Your task to perform on an android device: Search for Mexican restaurants on Maps Image 0: 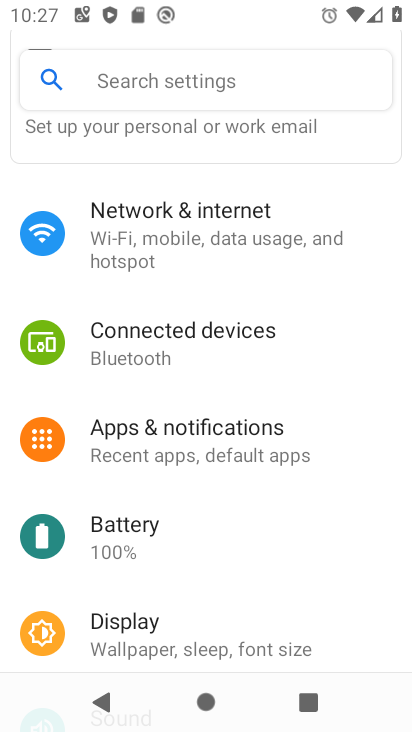
Step 0: press home button
Your task to perform on an android device: Search for Mexican restaurants on Maps Image 1: 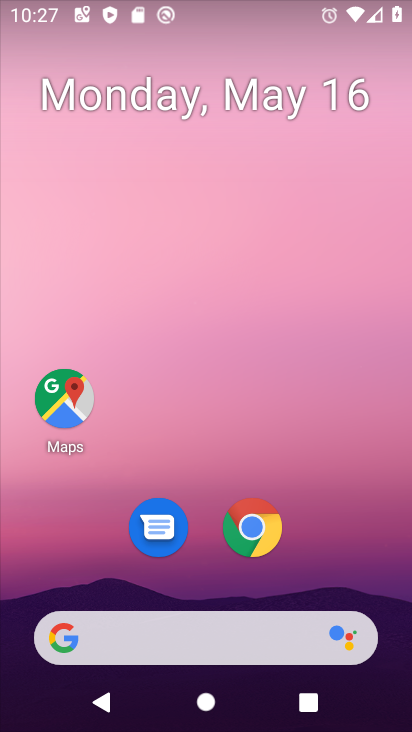
Step 1: click (61, 402)
Your task to perform on an android device: Search for Mexican restaurants on Maps Image 2: 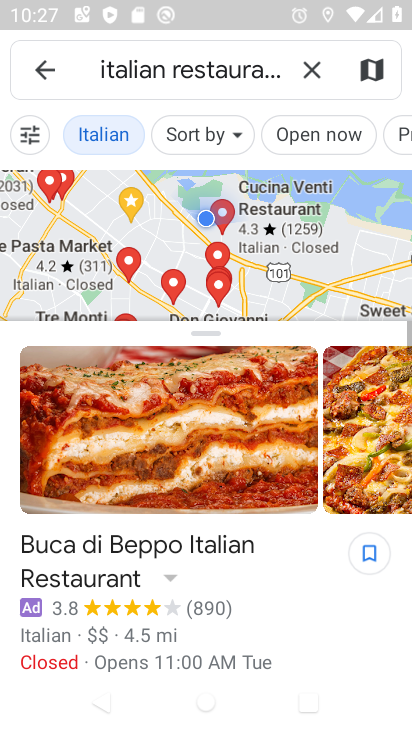
Step 2: click (308, 72)
Your task to perform on an android device: Search for Mexican restaurants on Maps Image 3: 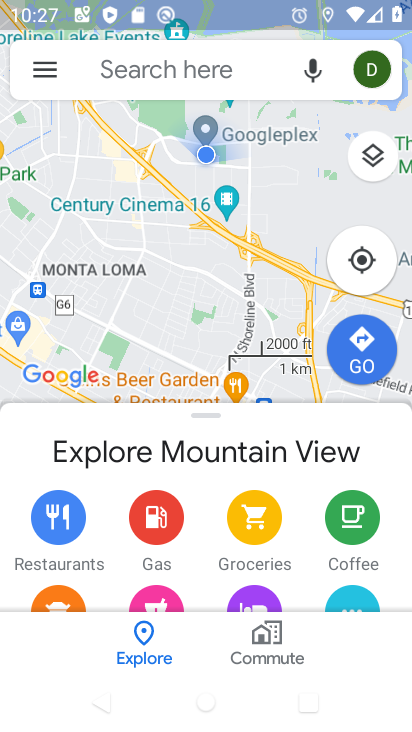
Step 3: click (114, 73)
Your task to perform on an android device: Search for Mexican restaurants on Maps Image 4: 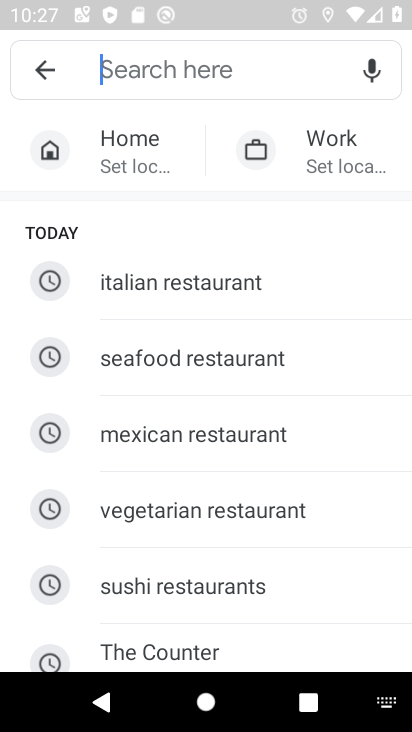
Step 4: type "mexican restaurant "
Your task to perform on an android device: Search for Mexican restaurants on Maps Image 5: 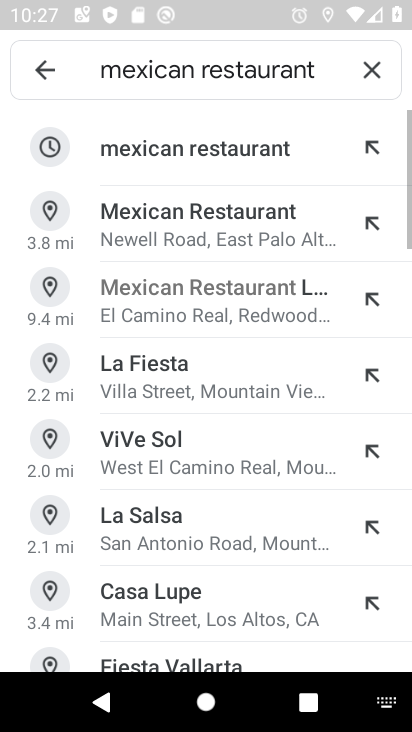
Step 5: click (186, 157)
Your task to perform on an android device: Search for Mexican restaurants on Maps Image 6: 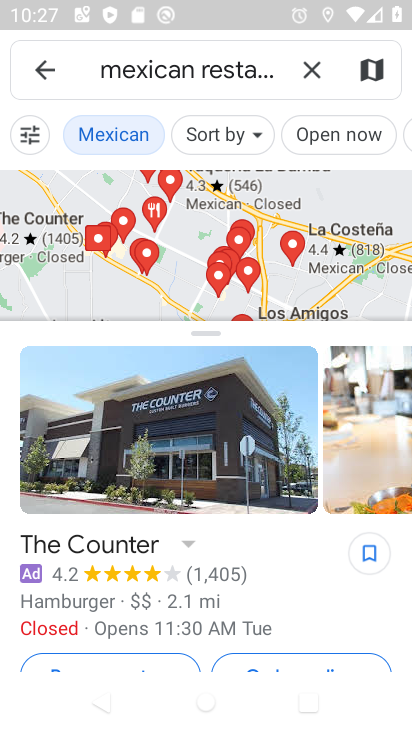
Step 6: task complete